Your task to perform on an android device: When is my next meeting? Image 0: 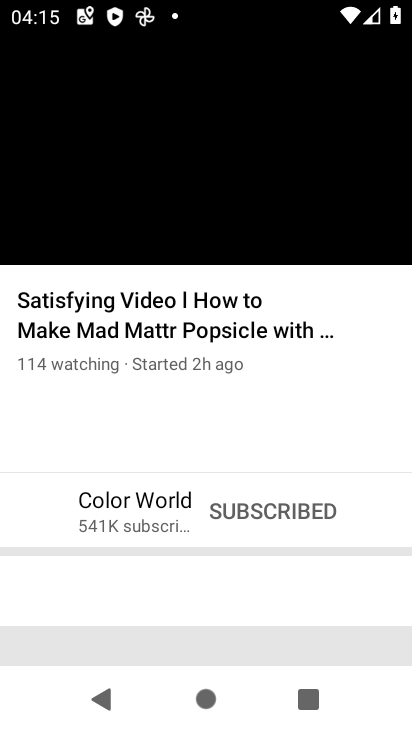
Step 0: press home button
Your task to perform on an android device: When is my next meeting? Image 1: 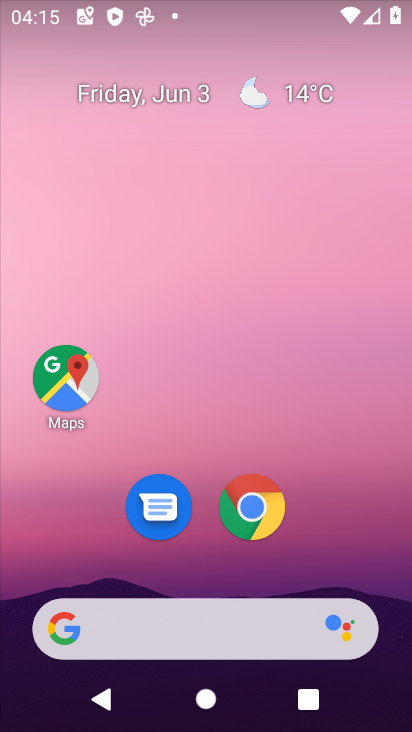
Step 1: drag from (231, 552) to (248, 192)
Your task to perform on an android device: When is my next meeting? Image 2: 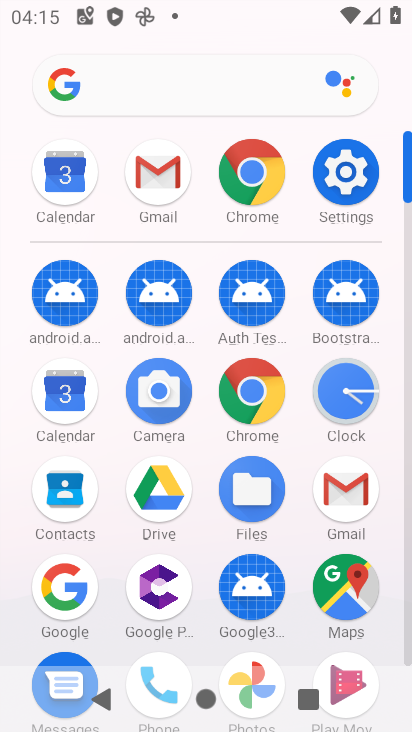
Step 2: click (81, 399)
Your task to perform on an android device: When is my next meeting? Image 3: 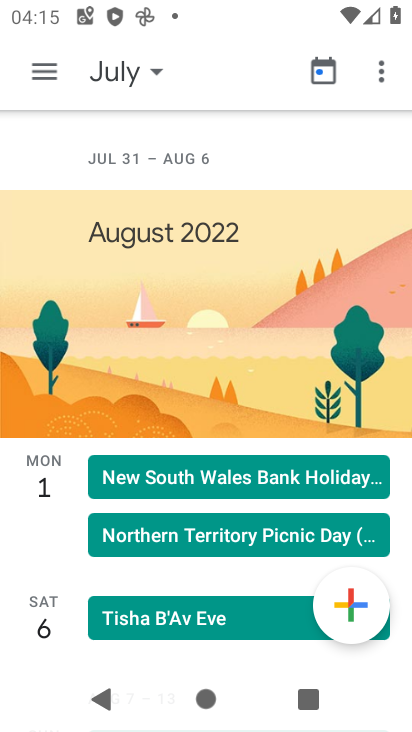
Step 3: click (44, 66)
Your task to perform on an android device: When is my next meeting? Image 4: 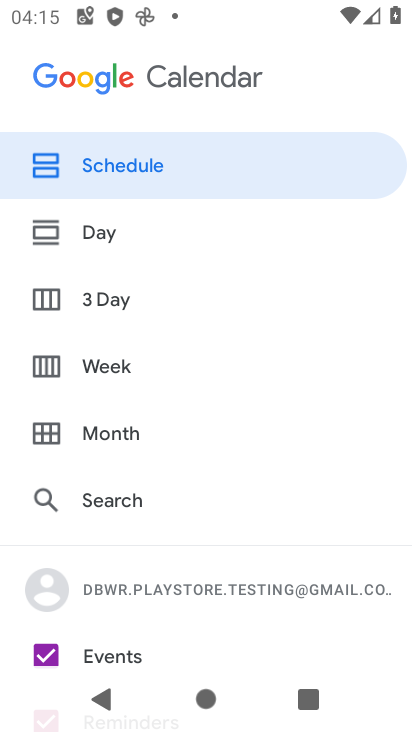
Step 4: click (152, 177)
Your task to perform on an android device: When is my next meeting? Image 5: 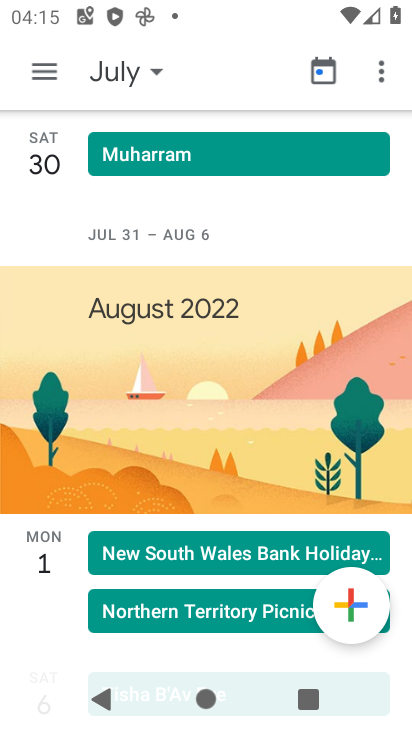
Step 5: task complete